Your task to perform on an android device: move an email to a new category in the gmail app Image 0: 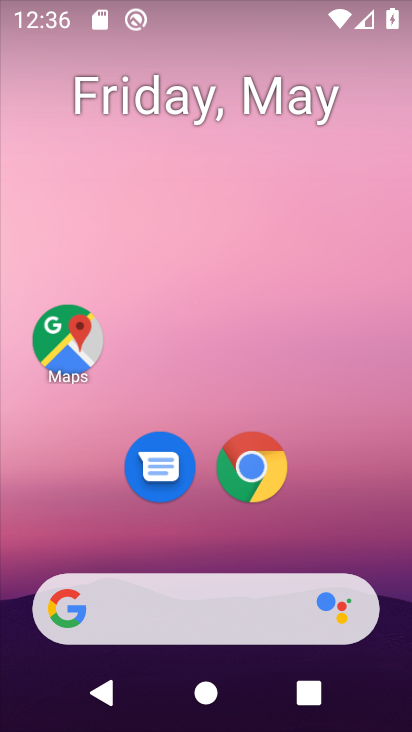
Step 0: drag from (382, 495) to (400, 99)
Your task to perform on an android device: move an email to a new category in the gmail app Image 1: 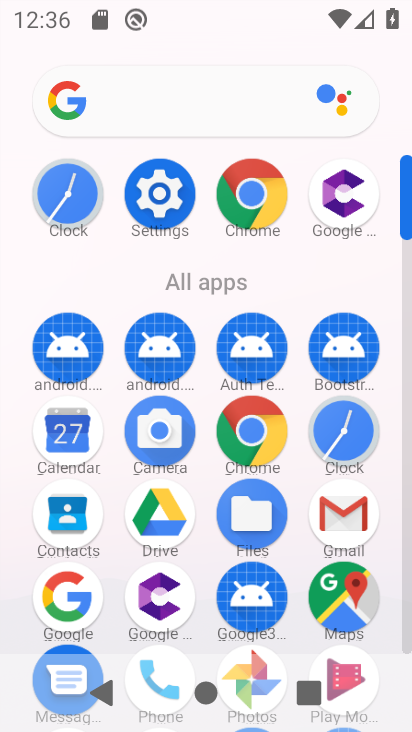
Step 1: click (351, 503)
Your task to perform on an android device: move an email to a new category in the gmail app Image 2: 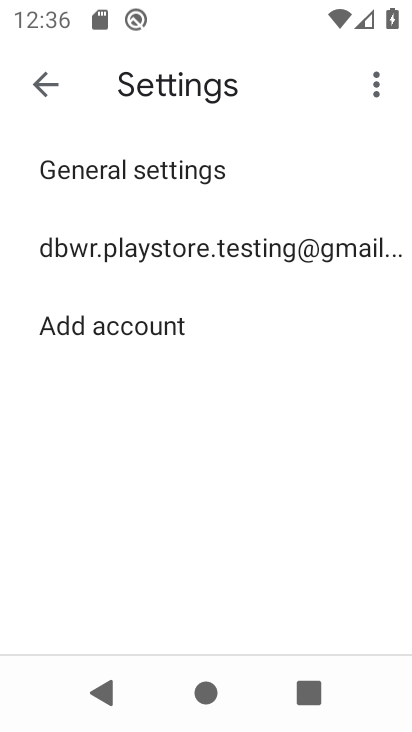
Step 2: click (123, 250)
Your task to perform on an android device: move an email to a new category in the gmail app Image 3: 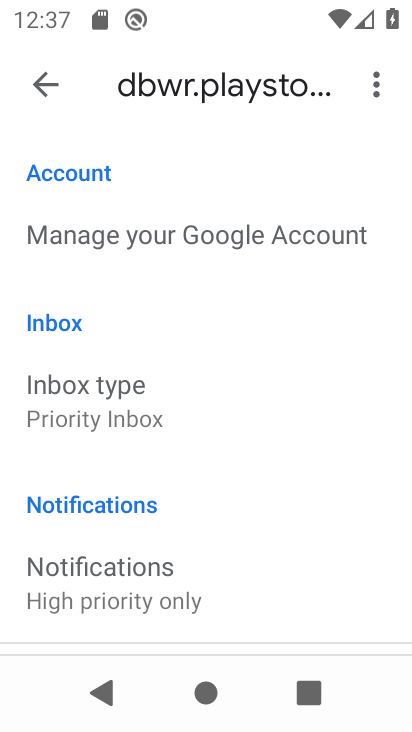
Step 3: click (43, 85)
Your task to perform on an android device: move an email to a new category in the gmail app Image 4: 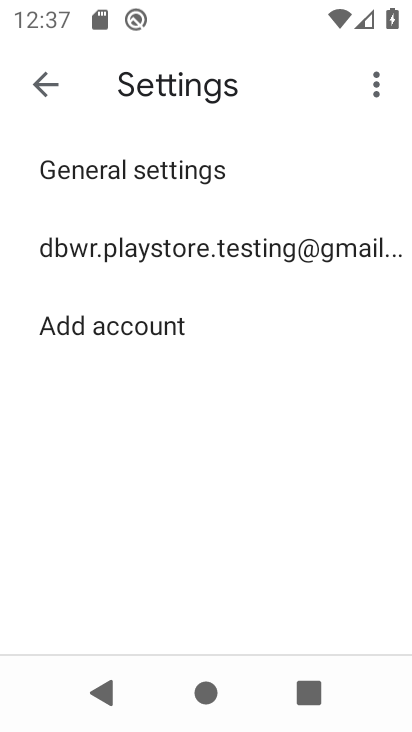
Step 4: click (43, 88)
Your task to perform on an android device: move an email to a new category in the gmail app Image 5: 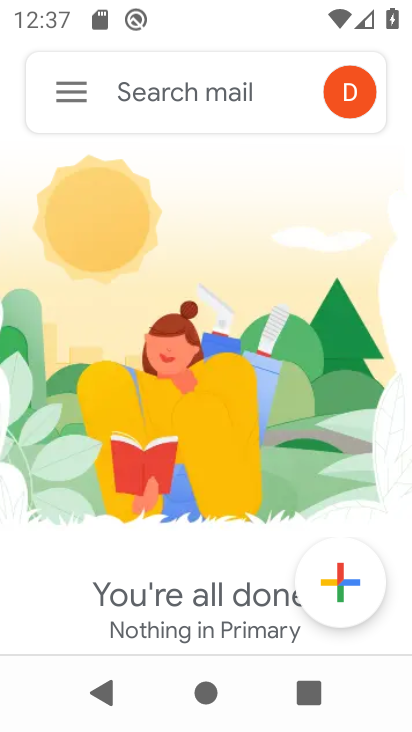
Step 5: task complete